Your task to perform on an android device: Show me recent news Image 0: 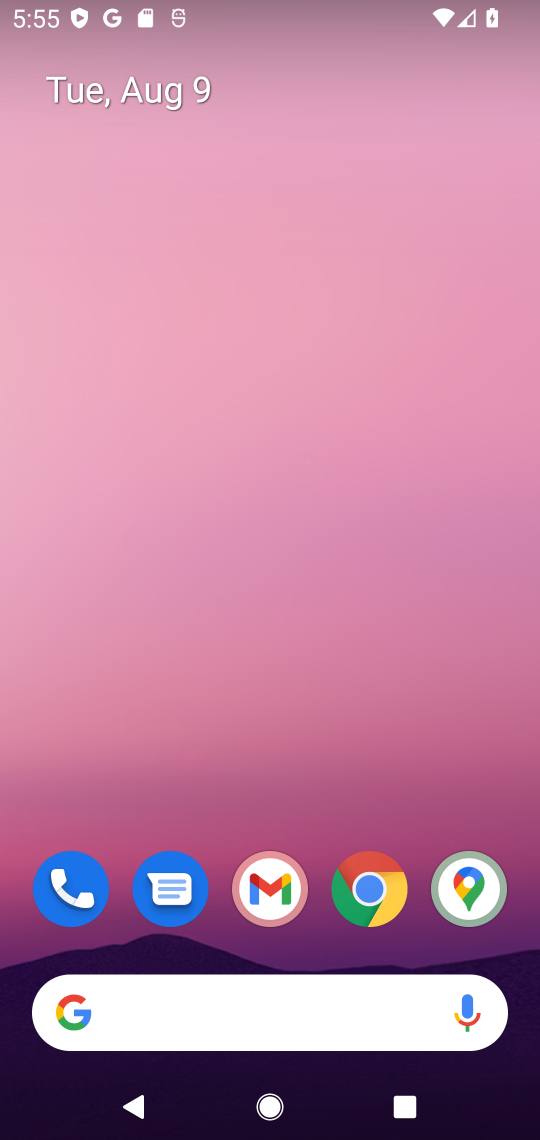
Step 0: drag from (270, 998) to (275, 152)
Your task to perform on an android device: Show me recent news Image 1: 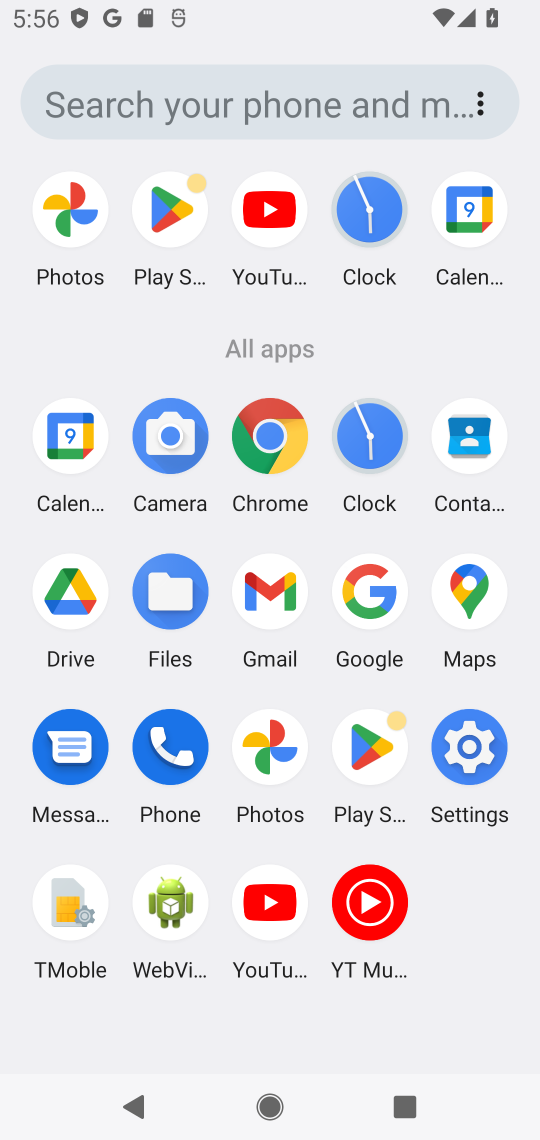
Step 1: click (281, 472)
Your task to perform on an android device: Show me recent news Image 2: 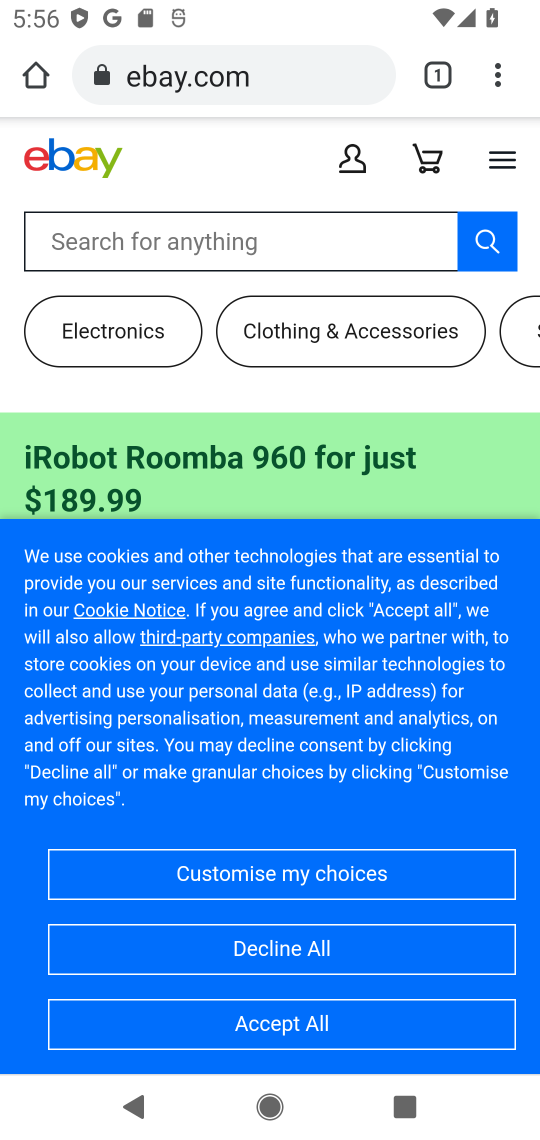
Step 2: click (221, 84)
Your task to perform on an android device: Show me recent news Image 3: 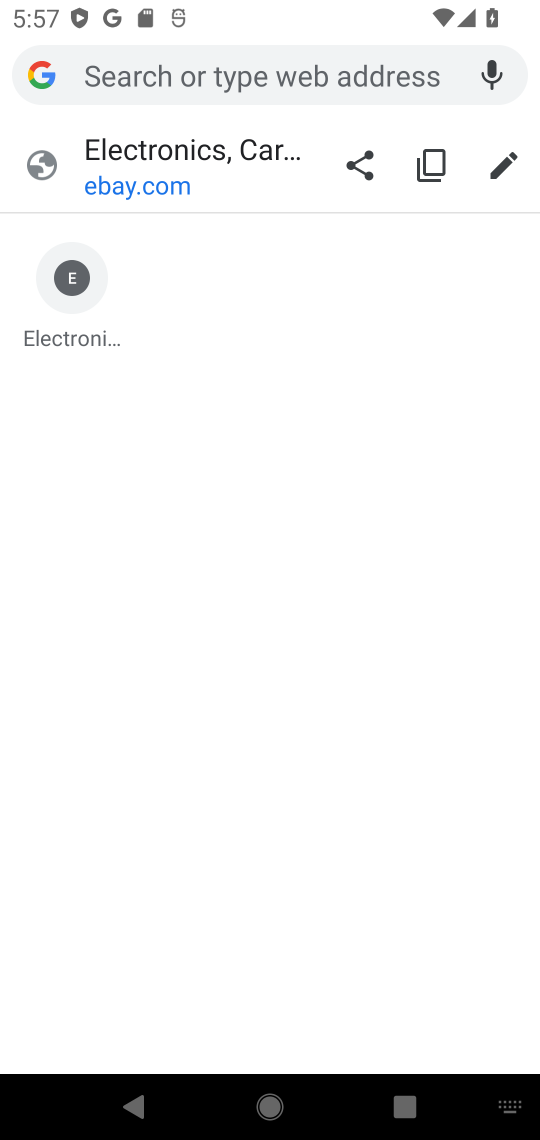
Step 3: type "recent news"
Your task to perform on an android device: Show me recent news Image 4: 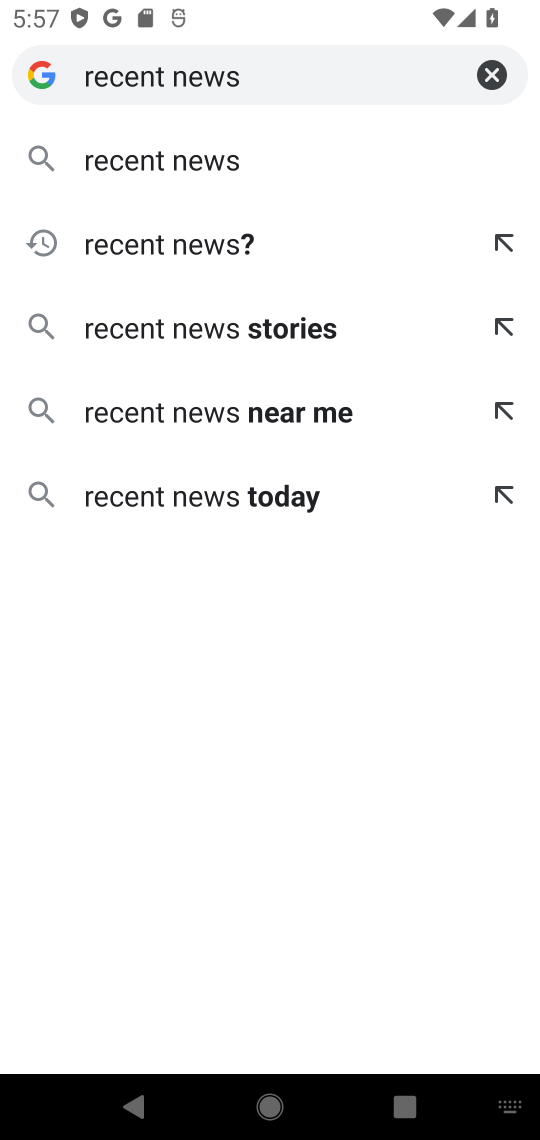
Step 4: click (205, 152)
Your task to perform on an android device: Show me recent news Image 5: 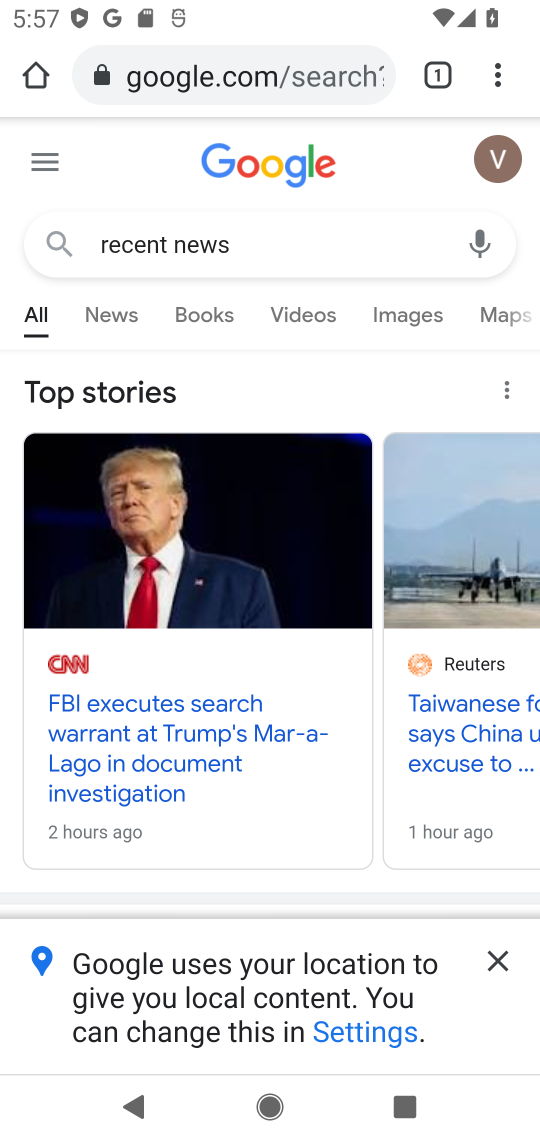
Step 5: task complete